Your task to perform on an android device: Go to Amazon Image 0: 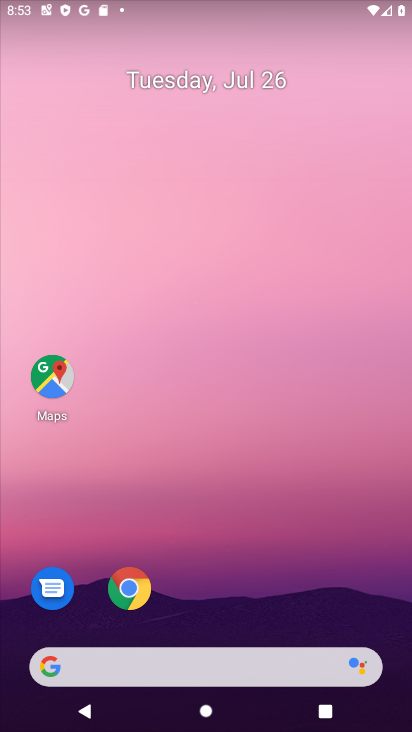
Step 0: press home button
Your task to perform on an android device: Go to Amazon Image 1: 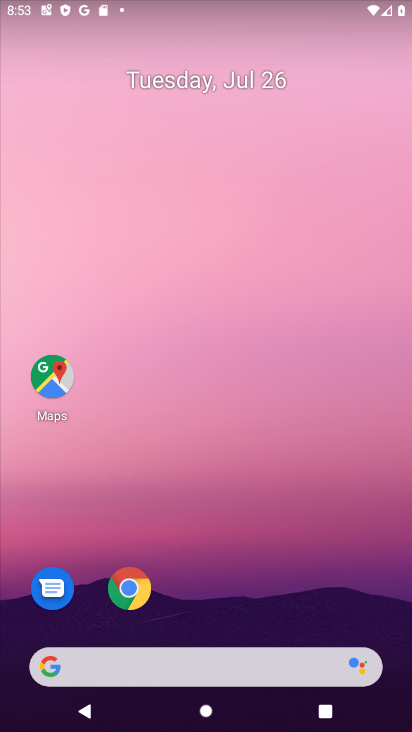
Step 1: click (127, 581)
Your task to perform on an android device: Go to Amazon Image 2: 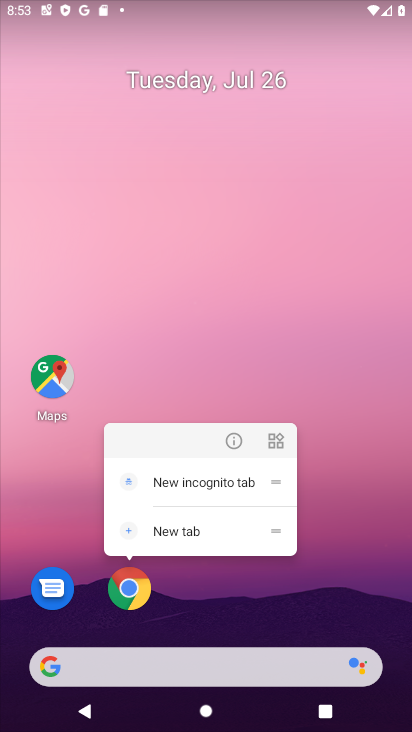
Step 2: click (125, 581)
Your task to perform on an android device: Go to Amazon Image 3: 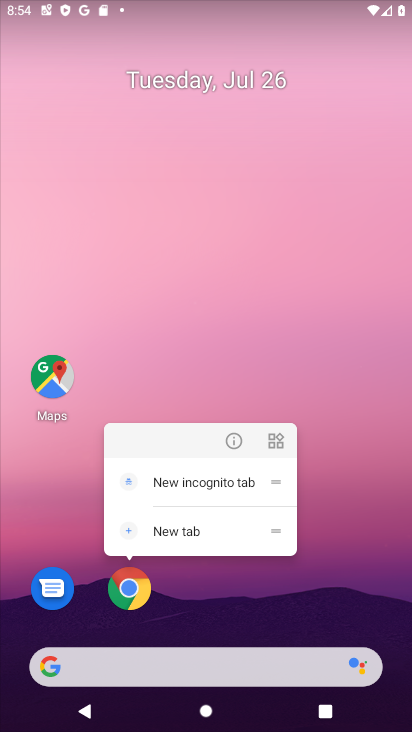
Step 3: click (127, 576)
Your task to perform on an android device: Go to Amazon Image 4: 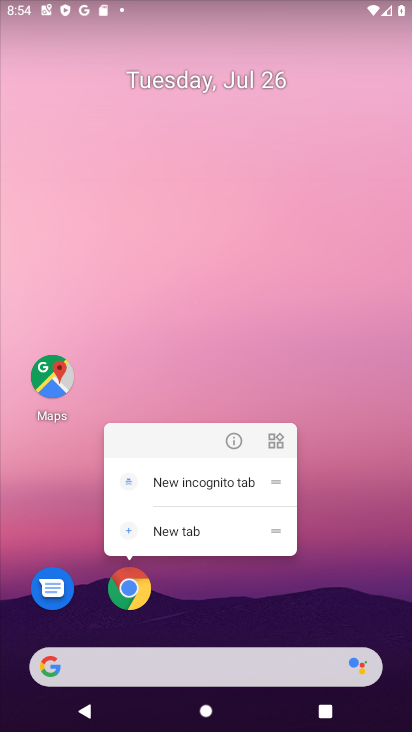
Step 4: click (127, 584)
Your task to perform on an android device: Go to Amazon Image 5: 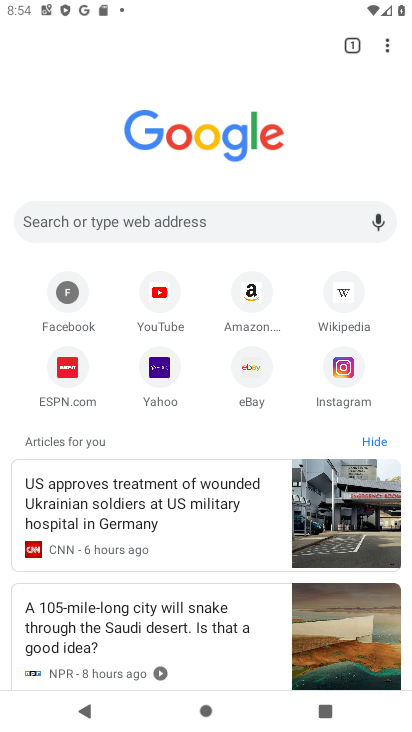
Step 5: click (248, 283)
Your task to perform on an android device: Go to Amazon Image 6: 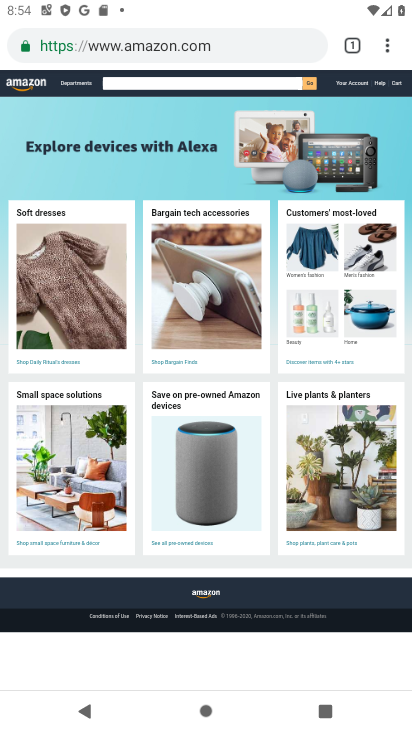
Step 6: task complete